Your task to perform on an android device: manage bookmarks in the chrome app Image 0: 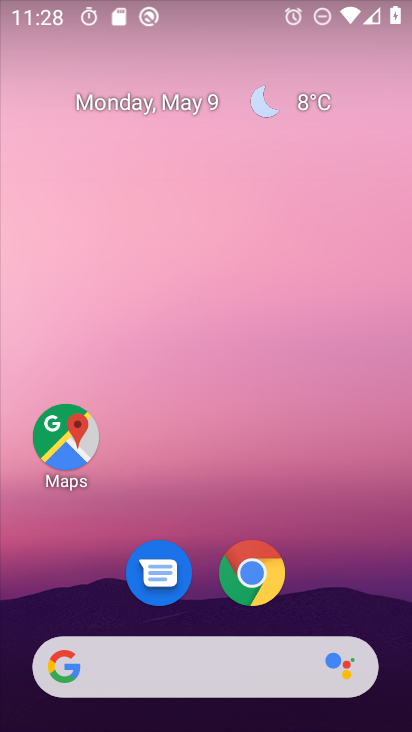
Step 0: click (256, 585)
Your task to perform on an android device: manage bookmarks in the chrome app Image 1: 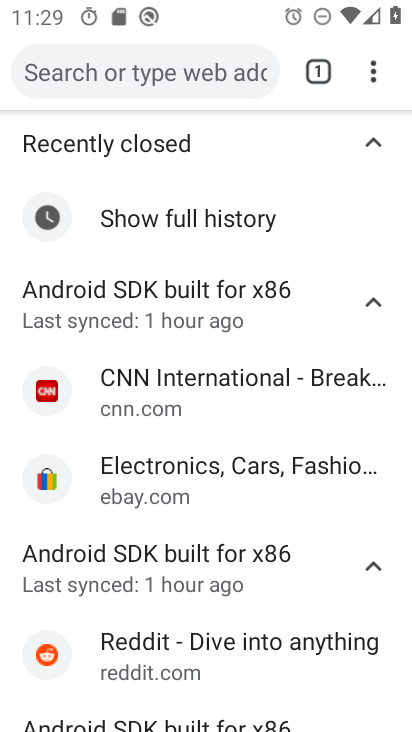
Step 1: click (374, 65)
Your task to perform on an android device: manage bookmarks in the chrome app Image 2: 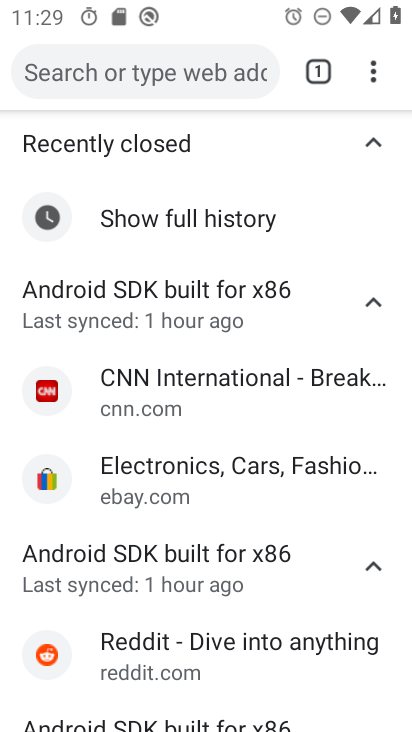
Step 2: drag from (370, 70) to (207, 287)
Your task to perform on an android device: manage bookmarks in the chrome app Image 3: 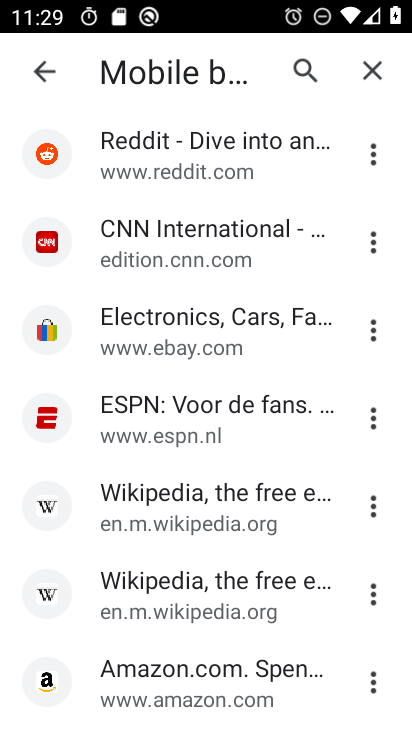
Step 3: click (371, 154)
Your task to perform on an android device: manage bookmarks in the chrome app Image 4: 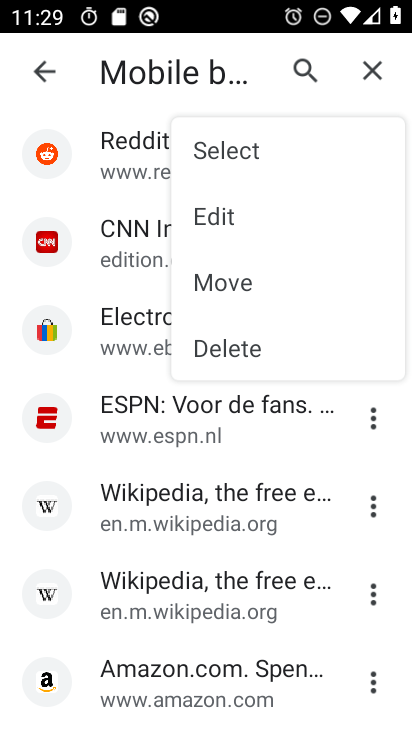
Step 4: click (248, 355)
Your task to perform on an android device: manage bookmarks in the chrome app Image 5: 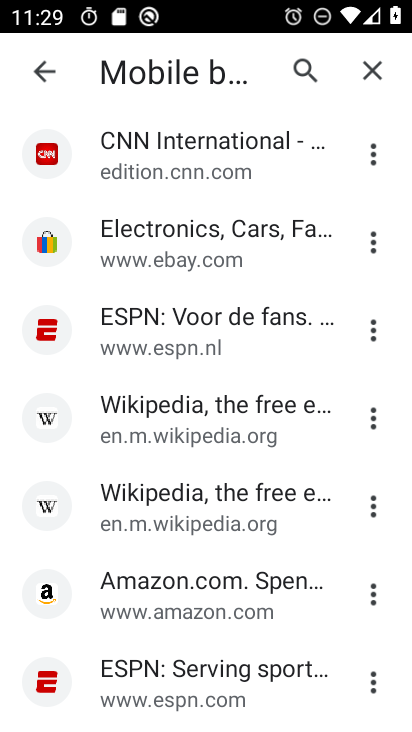
Step 5: task complete